Your task to perform on an android device: See recent photos Image 0: 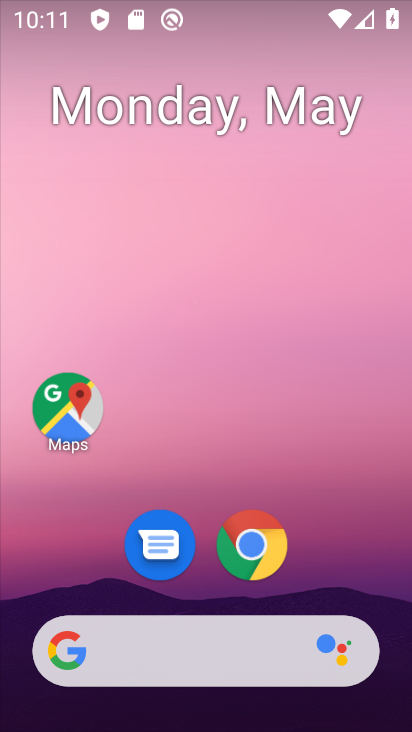
Step 0: drag from (226, 588) to (196, 22)
Your task to perform on an android device: See recent photos Image 1: 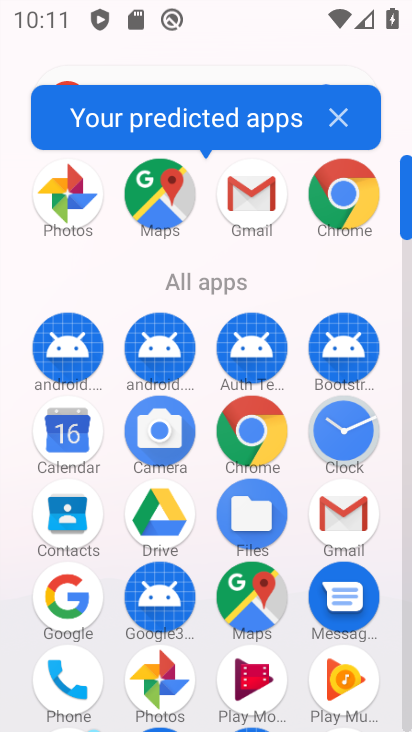
Step 1: click (160, 704)
Your task to perform on an android device: See recent photos Image 2: 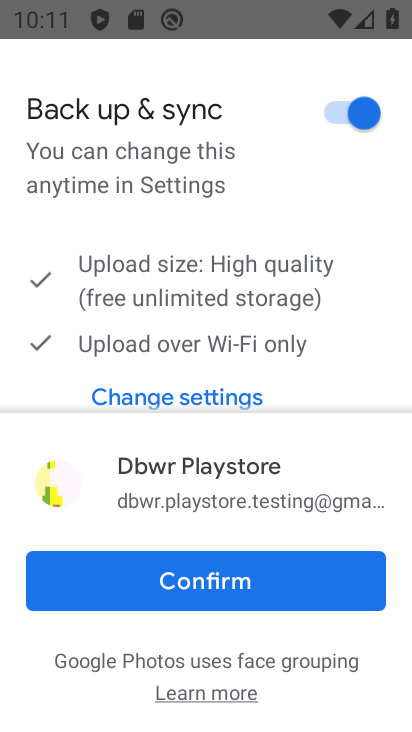
Step 2: click (171, 601)
Your task to perform on an android device: See recent photos Image 3: 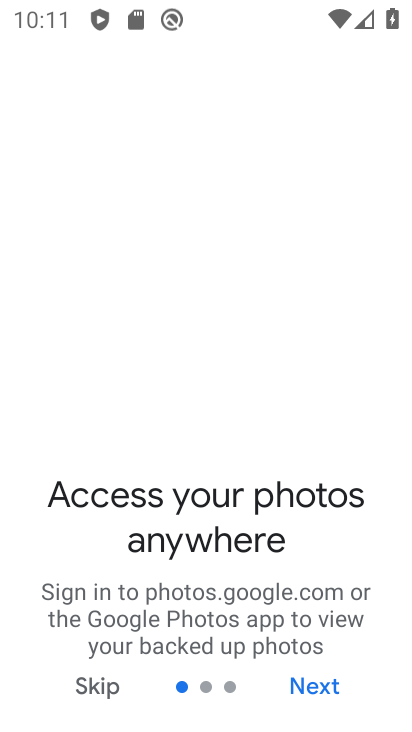
Step 3: drag from (314, 684) to (397, 684)
Your task to perform on an android device: See recent photos Image 4: 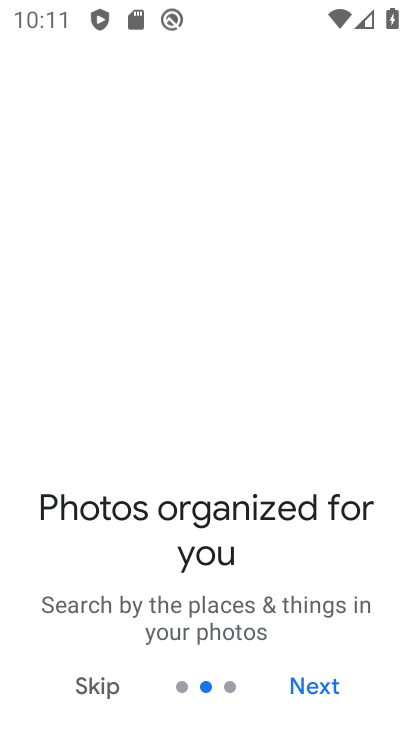
Step 4: drag from (314, 684) to (397, 684)
Your task to perform on an android device: See recent photos Image 5: 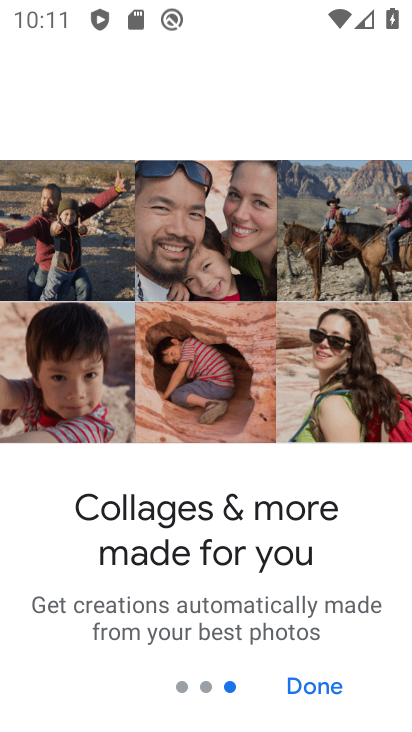
Step 5: click (346, 684)
Your task to perform on an android device: See recent photos Image 6: 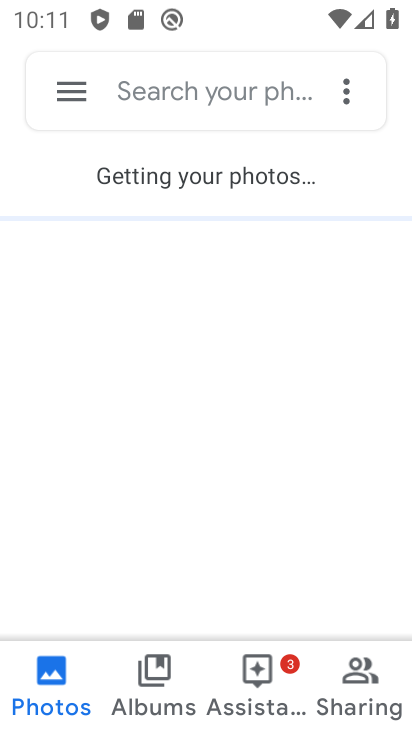
Step 6: click (152, 668)
Your task to perform on an android device: See recent photos Image 7: 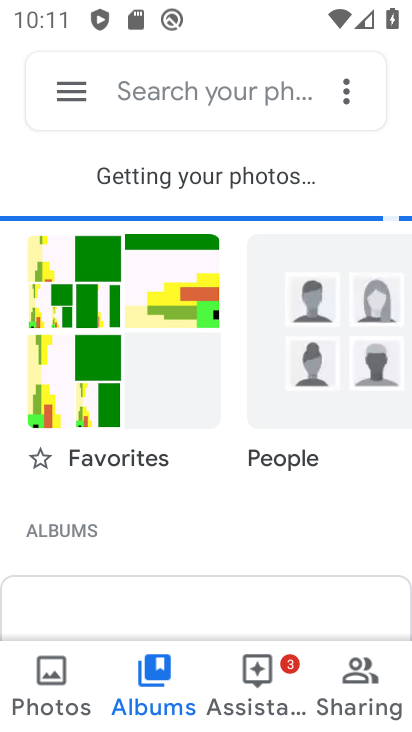
Step 7: click (60, 692)
Your task to perform on an android device: See recent photos Image 8: 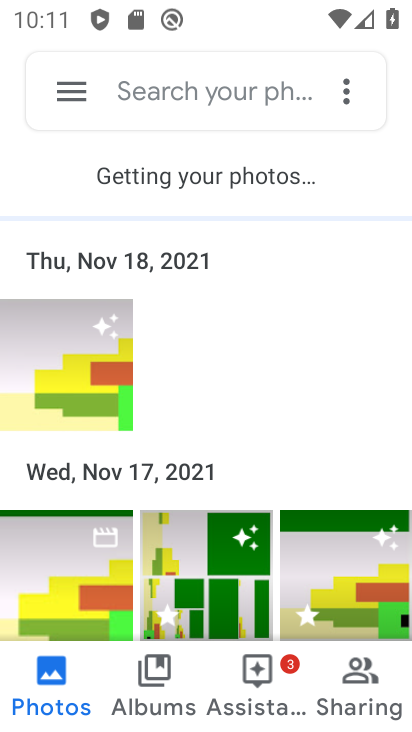
Step 8: task complete